Your task to perform on an android device: open wifi settings Image 0: 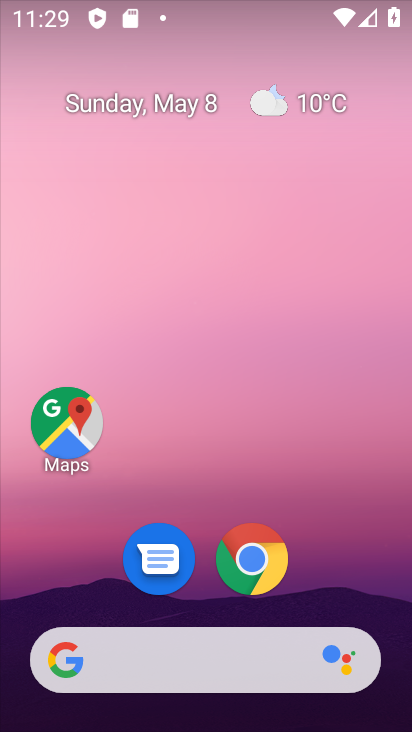
Step 0: drag from (216, 484) to (276, 142)
Your task to perform on an android device: open wifi settings Image 1: 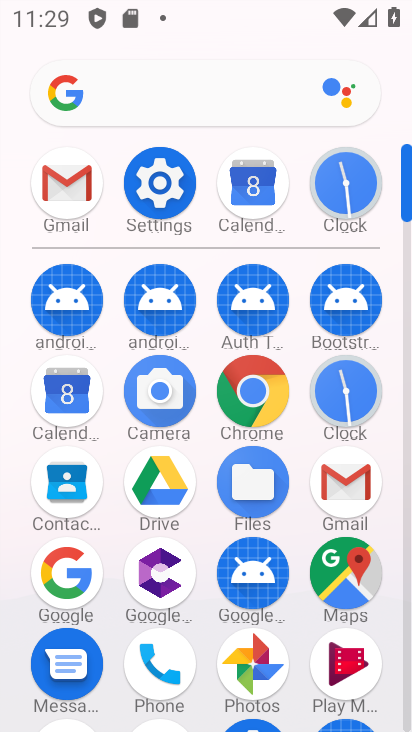
Step 1: click (170, 204)
Your task to perform on an android device: open wifi settings Image 2: 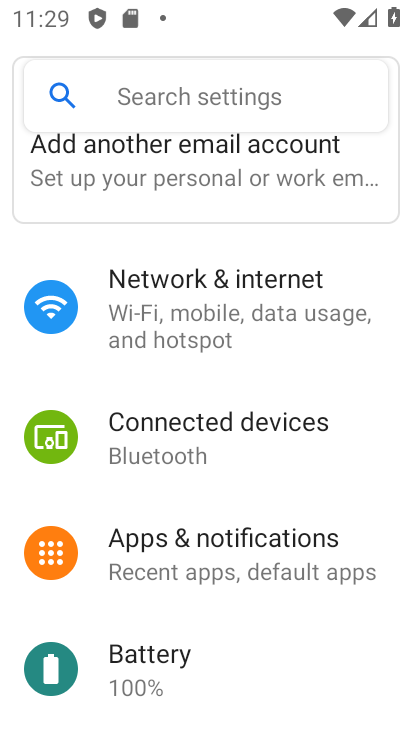
Step 2: click (164, 287)
Your task to perform on an android device: open wifi settings Image 3: 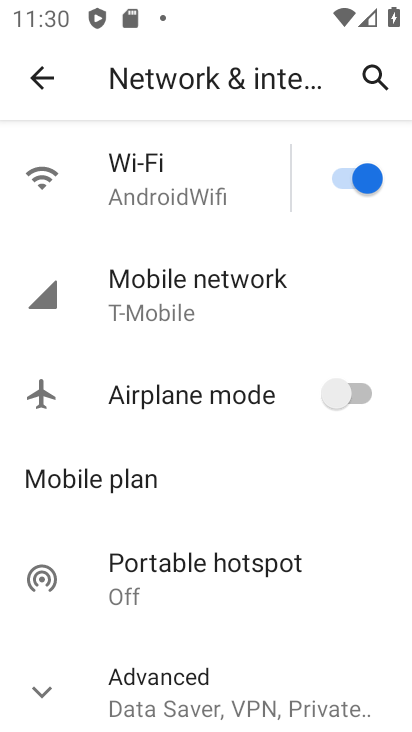
Step 3: click (185, 206)
Your task to perform on an android device: open wifi settings Image 4: 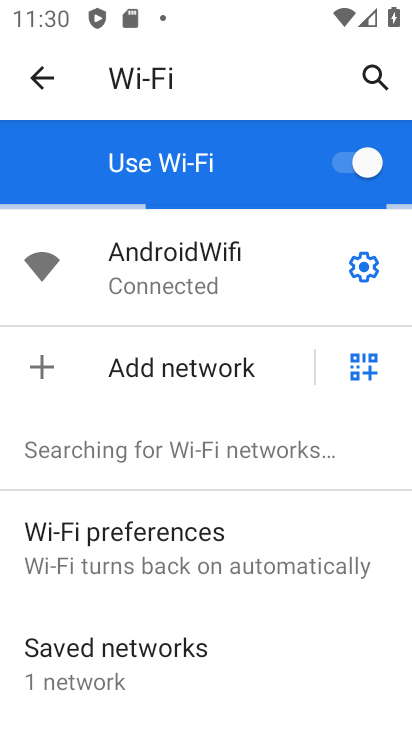
Step 4: task complete